Your task to perform on an android device: See recent photos Image 0: 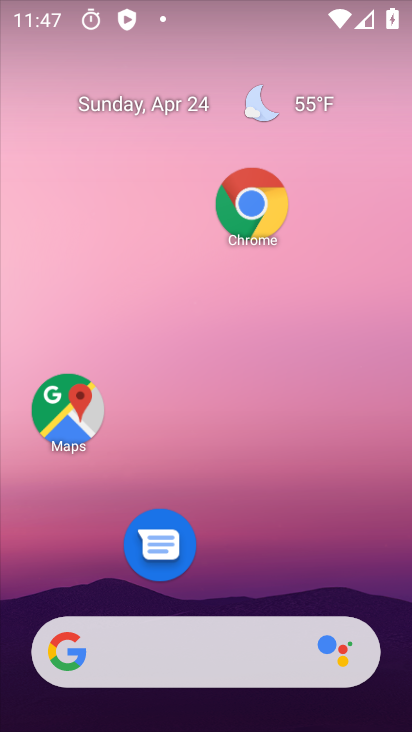
Step 0: drag from (293, 660) to (175, 138)
Your task to perform on an android device: See recent photos Image 1: 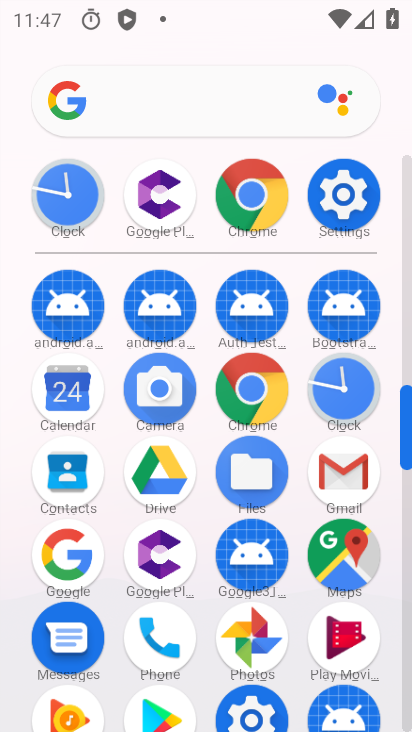
Step 1: click (241, 612)
Your task to perform on an android device: See recent photos Image 2: 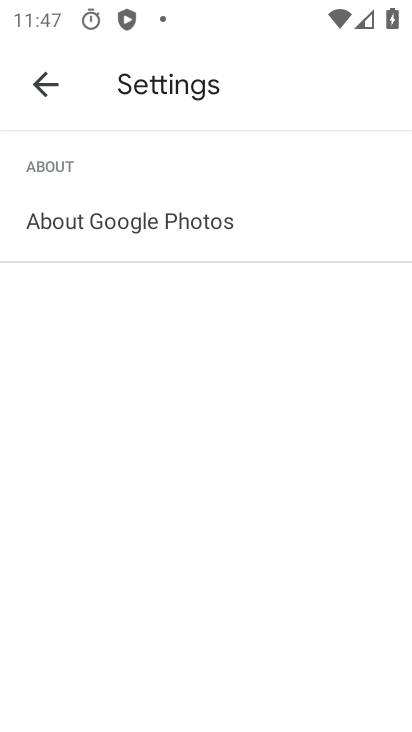
Step 2: click (39, 78)
Your task to perform on an android device: See recent photos Image 3: 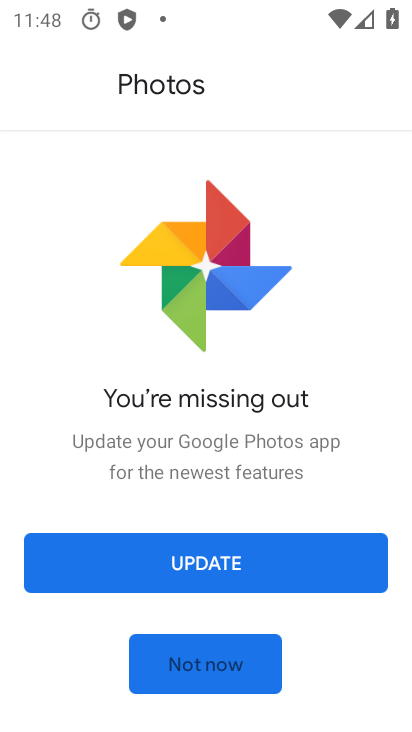
Step 3: click (187, 575)
Your task to perform on an android device: See recent photos Image 4: 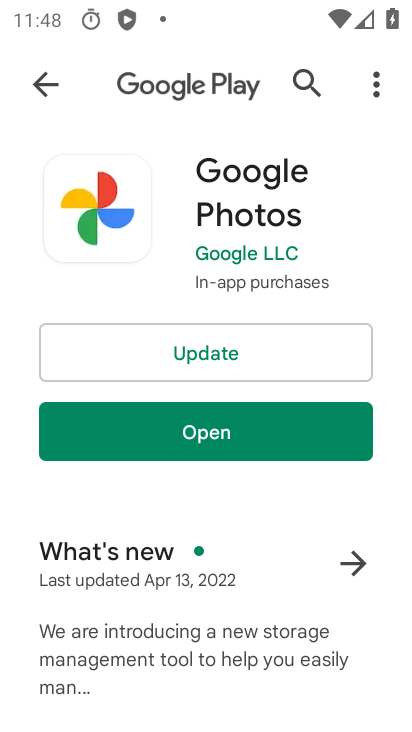
Step 4: click (171, 450)
Your task to perform on an android device: See recent photos Image 5: 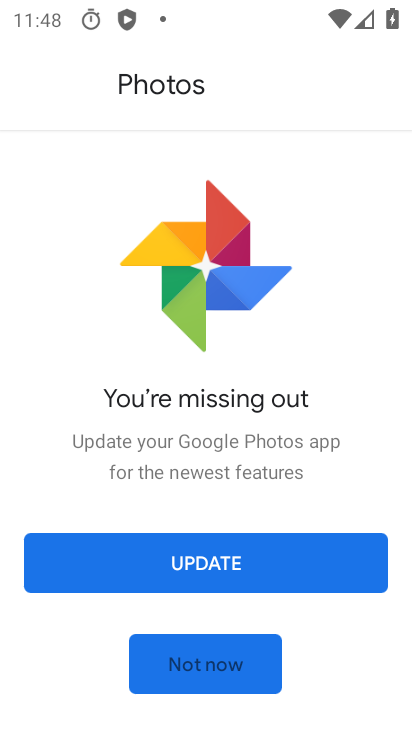
Step 5: click (219, 555)
Your task to perform on an android device: See recent photos Image 6: 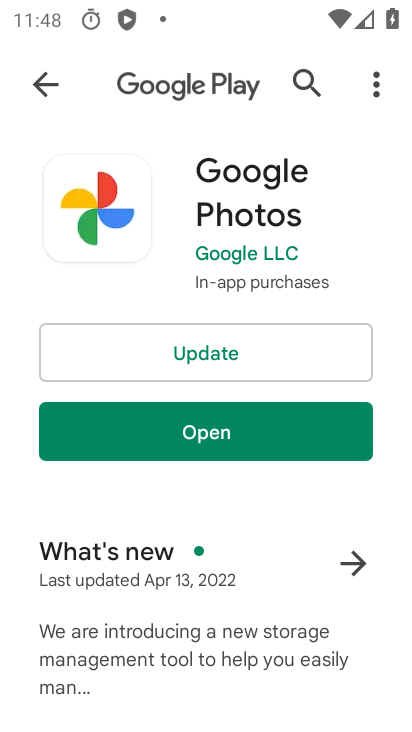
Step 6: click (231, 348)
Your task to perform on an android device: See recent photos Image 7: 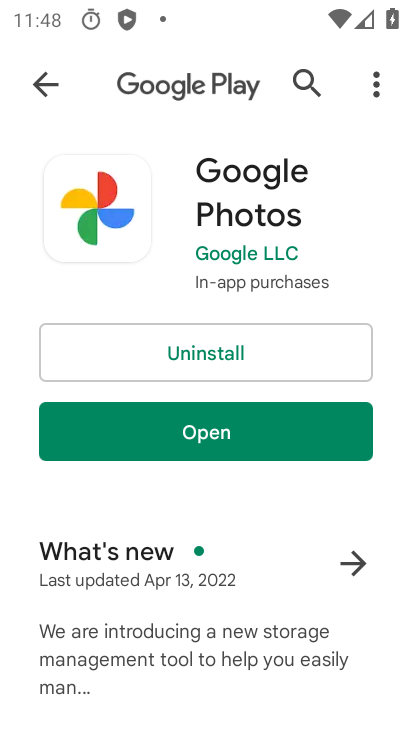
Step 7: click (222, 441)
Your task to perform on an android device: See recent photos Image 8: 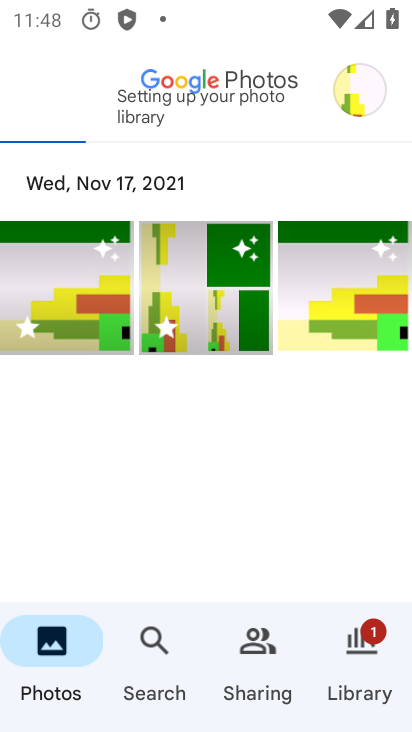
Step 8: task complete